Your task to perform on an android device: turn on the 24-hour format for clock Image 0: 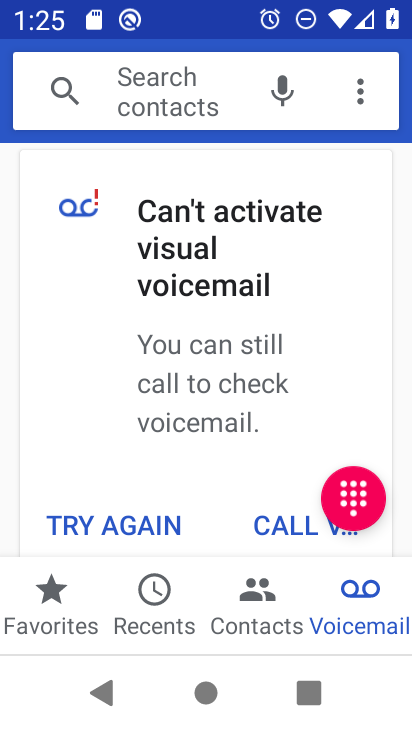
Step 0: press home button
Your task to perform on an android device: turn on the 24-hour format for clock Image 1: 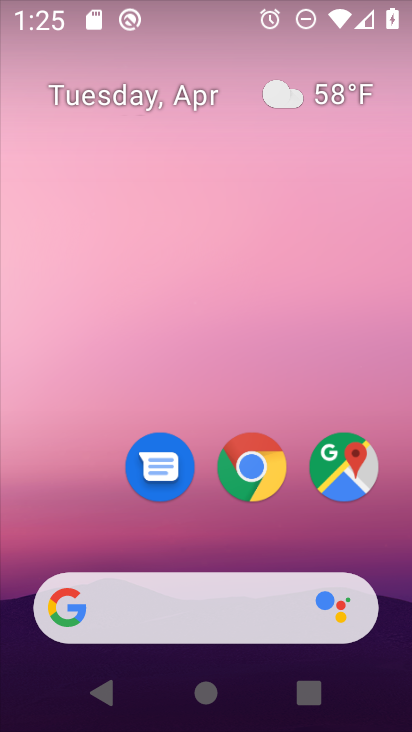
Step 1: drag from (179, 518) to (194, 7)
Your task to perform on an android device: turn on the 24-hour format for clock Image 2: 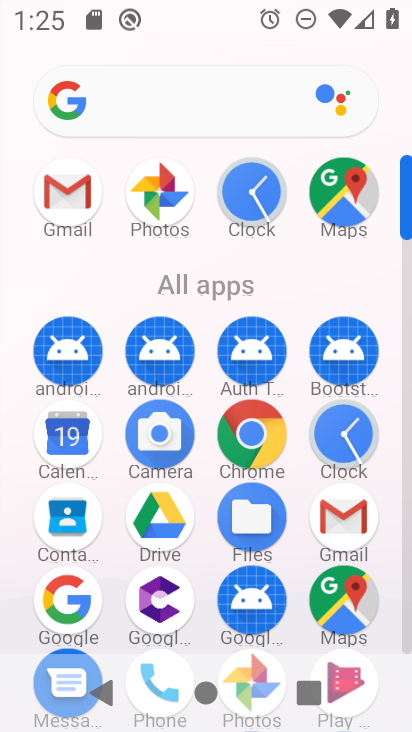
Step 2: click (240, 189)
Your task to perform on an android device: turn on the 24-hour format for clock Image 3: 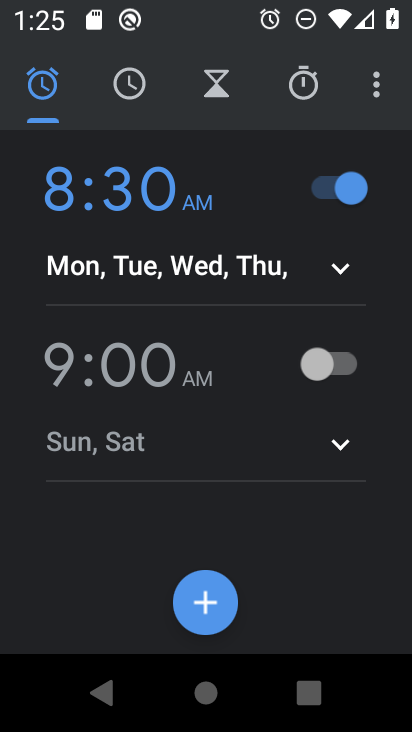
Step 3: click (376, 94)
Your task to perform on an android device: turn on the 24-hour format for clock Image 4: 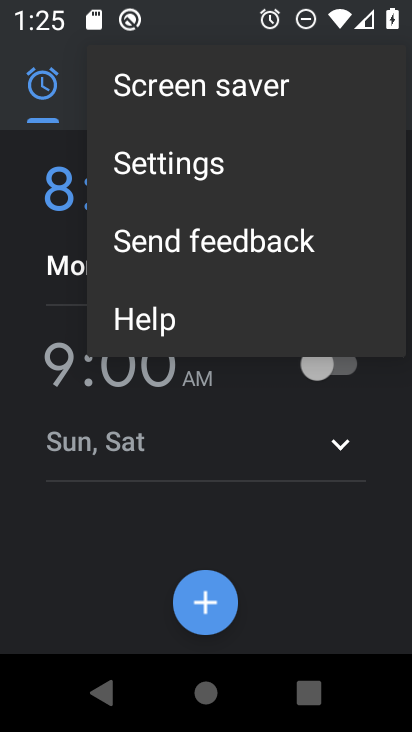
Step 4: click (160, 179)
Your task to perform on an android device: turn on the 24-hour format for clock Image 5: 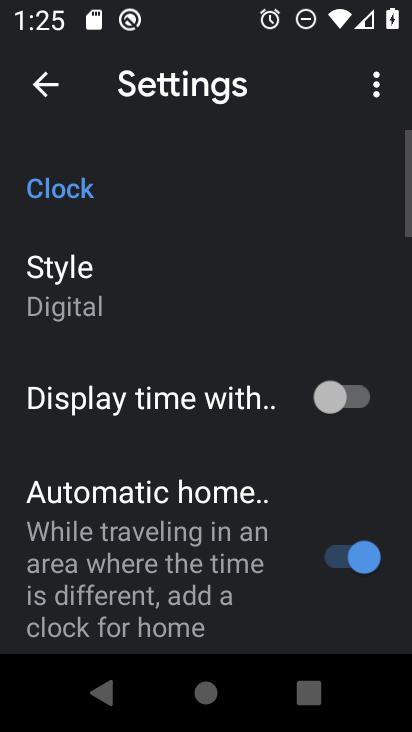
Step 5: drag from (122, 547) to (329, 11)
Your task to perform on an android device: turn on the 24-hour format for clock Image 6: 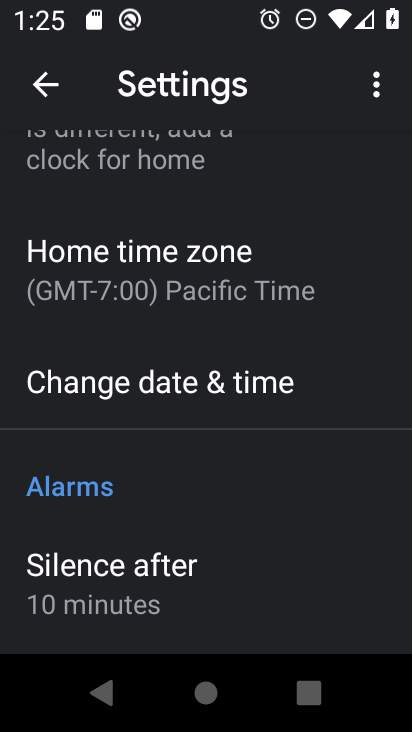
Step 6: click (201, 401)
Your task to perform on an android device: turn on the 24-hour format for clock Image 7: 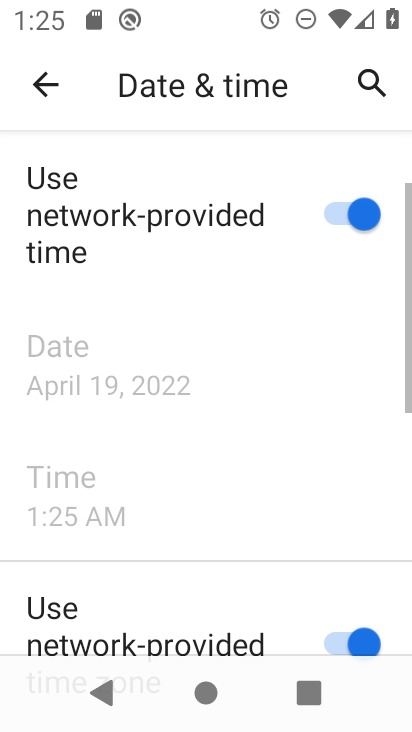
Step 7: drag from (148, 541) to (288, 177)
Your task to perform on an android device: turn on the 24-hour format for clock Image 8: 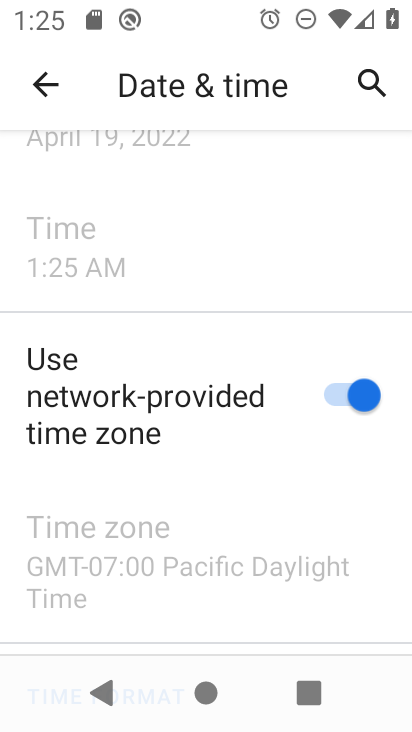
Step 8: drag from (159, 581) to (151, 72)
Your task to perform on an android device: turn on the 24-hour format for clock Image 9: 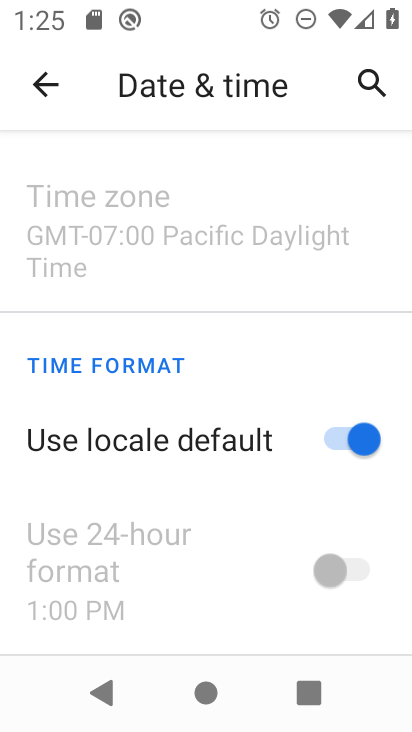
Step 9: click (360, 438)
Your task to perform on an android device: turn on the 24-hour format for clock Image 10: 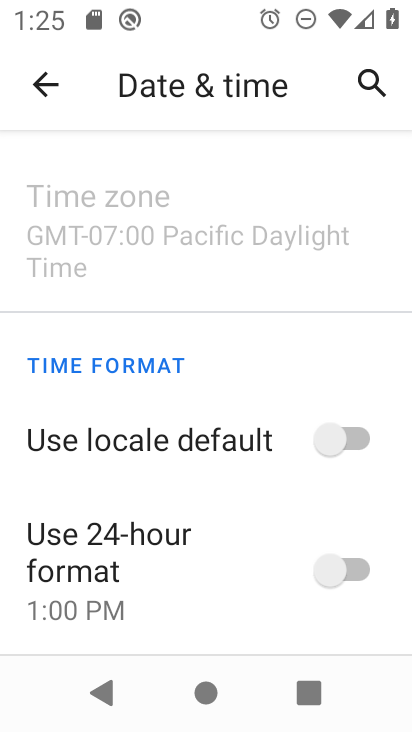
Step 10: click (360, 568)
Your task to perform on an android device: turn on the 24-hour format for clock Image 11: 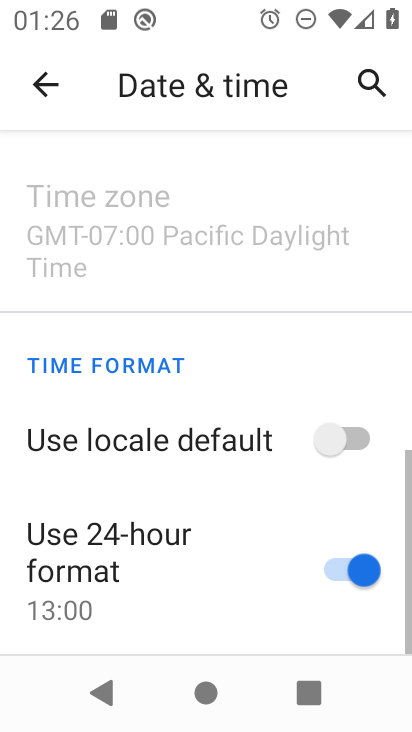
Step 11: task complete